Your task to perform on an android device: Do I have any events this weekend? Image 0: 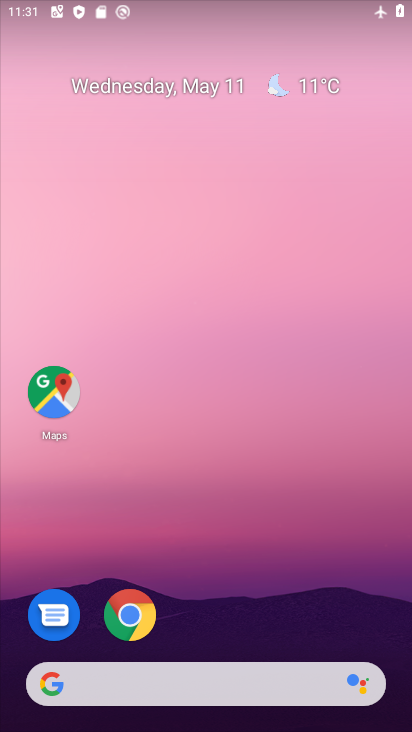
Step 0: drag from (279, 596) to (313, 71)
Your task to perform on an android device: Do I have any events this weekend? Image 1: 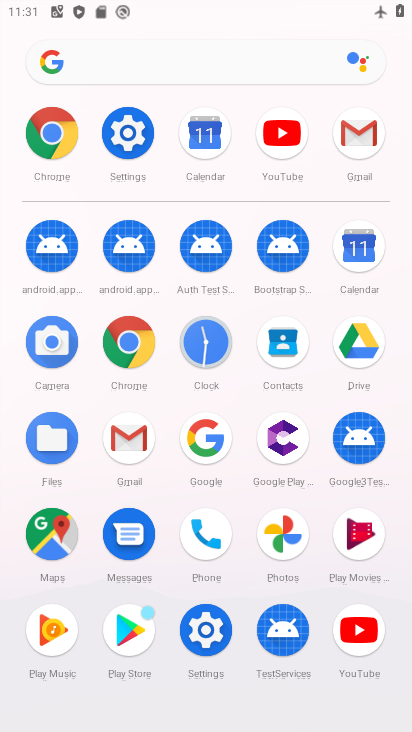
Step 1: click (210, 136)
Your task to perform on an android device: Do I have any events this weekend? Image 2: 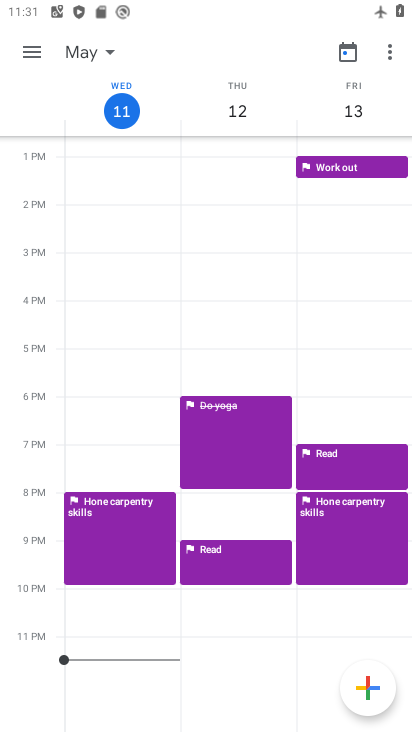
Step 2: task complete